Your task to perform on an android device: Go to sound settings Image 0: 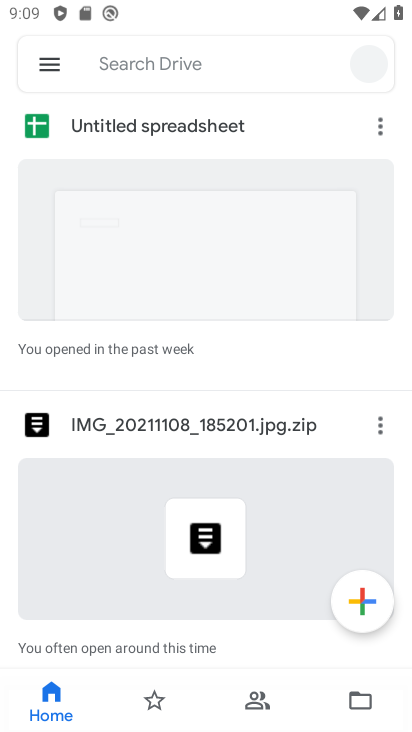
Step 0: press home button
Your task to perform on an android device: Go to sound settings Image 1: 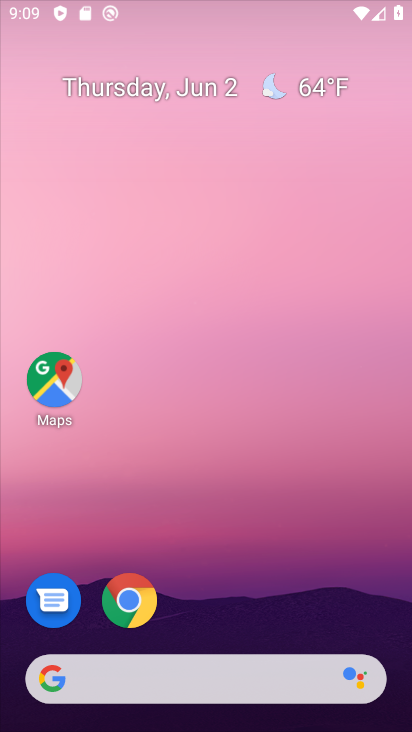
Step 1: drag from (198, 598) to (293, 9)
Your task to perform on an android device: Go to sound settings Image 2: 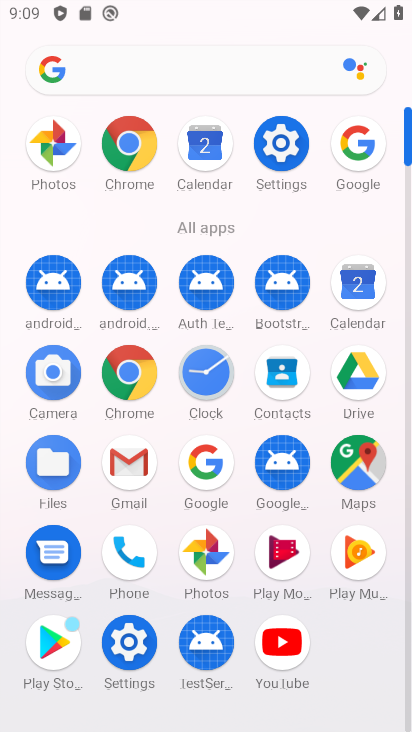
Step 2: click (279, 146)
Your task to perform on an android device: Go to sound settings Image 3: 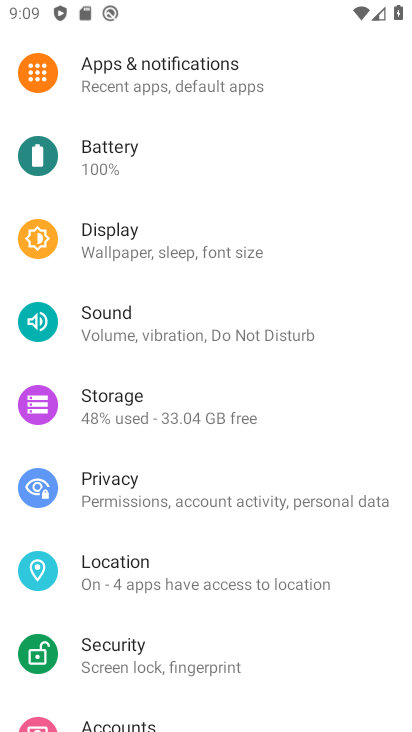
Step 3: click (133, 328)
Your task to perform on an android device: Go to sound settings Image 4: 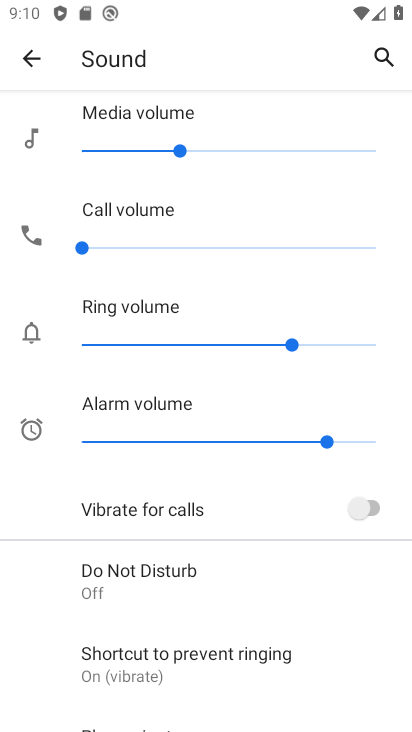
Step 4: task complete